Your task to perform on an android device: Empty the shopping cart on ebay. Search for "razer thresher" on ebay, select the first entry, and add it to the cart. Image 0: 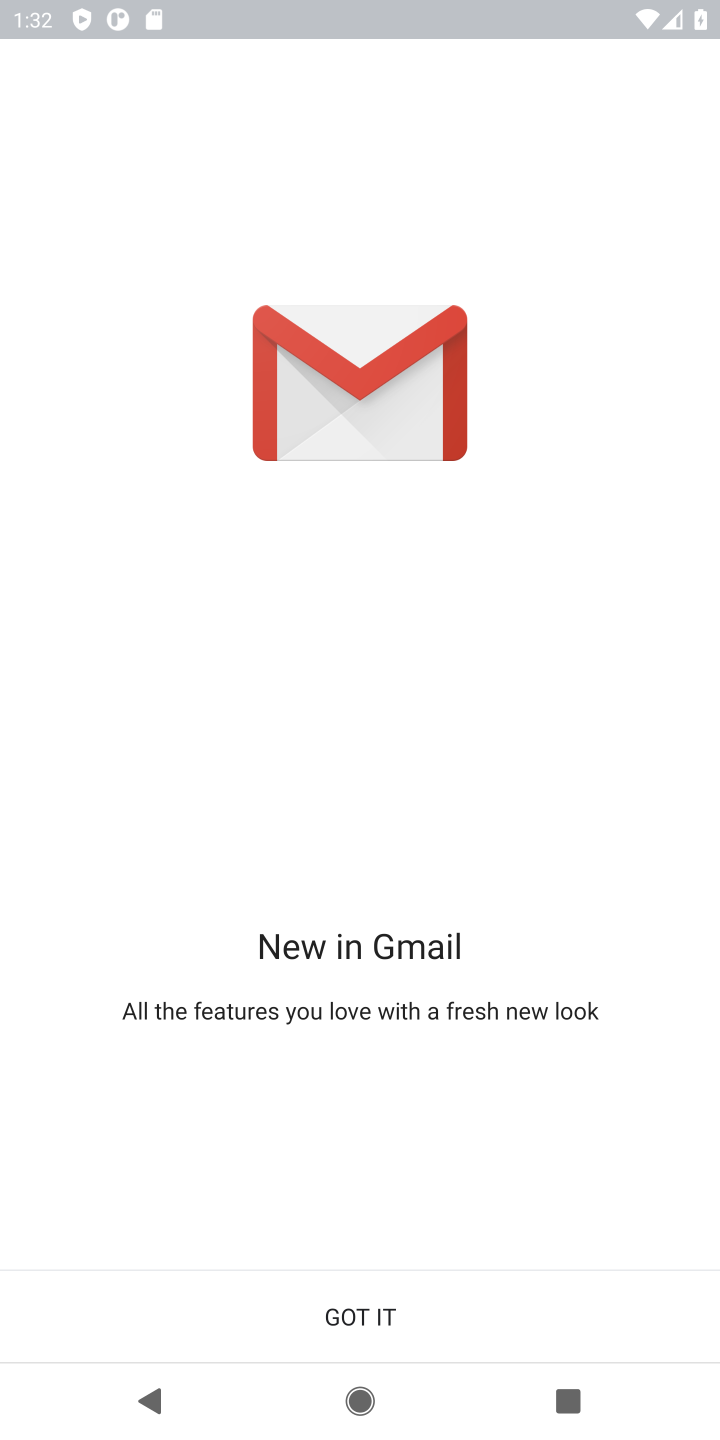
Step 0: press home button
Your task to perform on an android device: Empty the shopping cart on ebay. Search for "razer thresher" on ebay, select the first entry, and add it to the cart. Image 1: 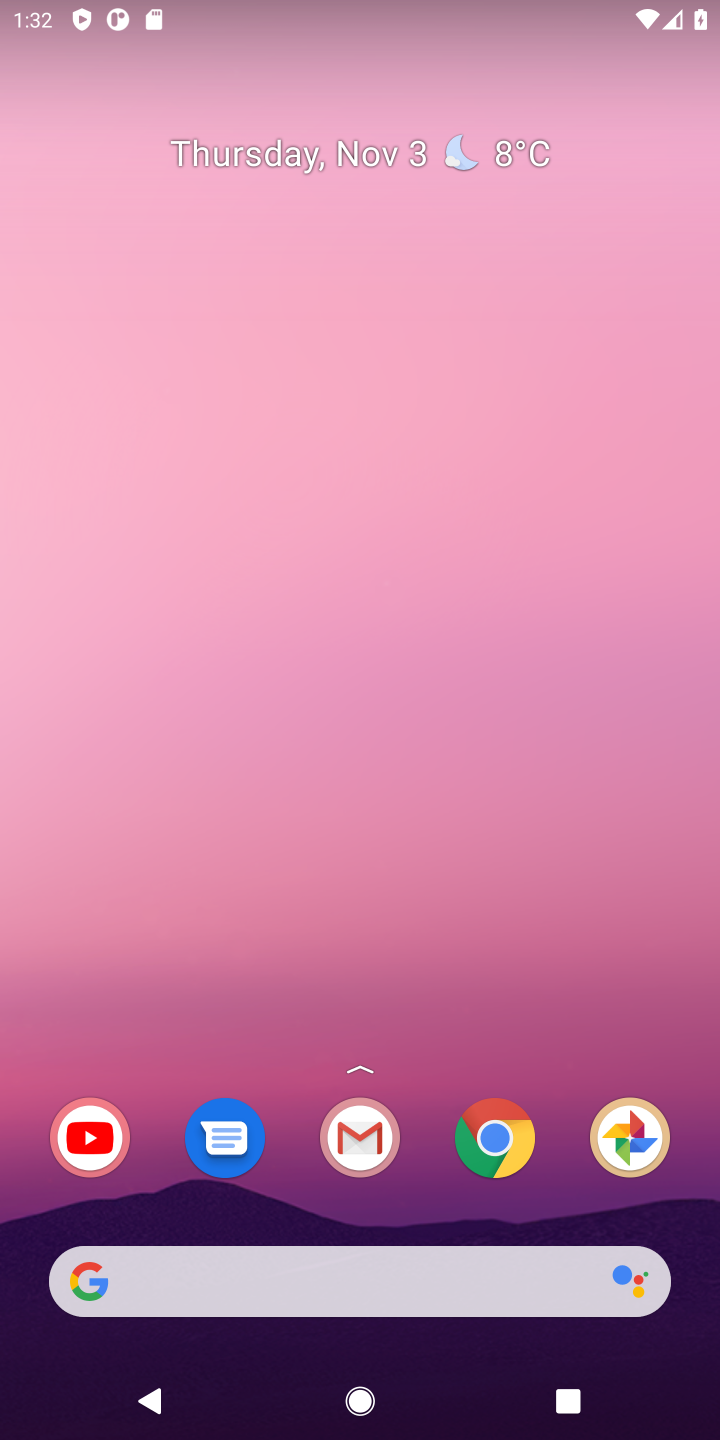
Step 1: click (487, 1136)
Your task to perform on an android device: Empty the shopping cart on ebay. Search for "razer thresher" on ebay, select the first entry, and add it to the cart. Image 2: 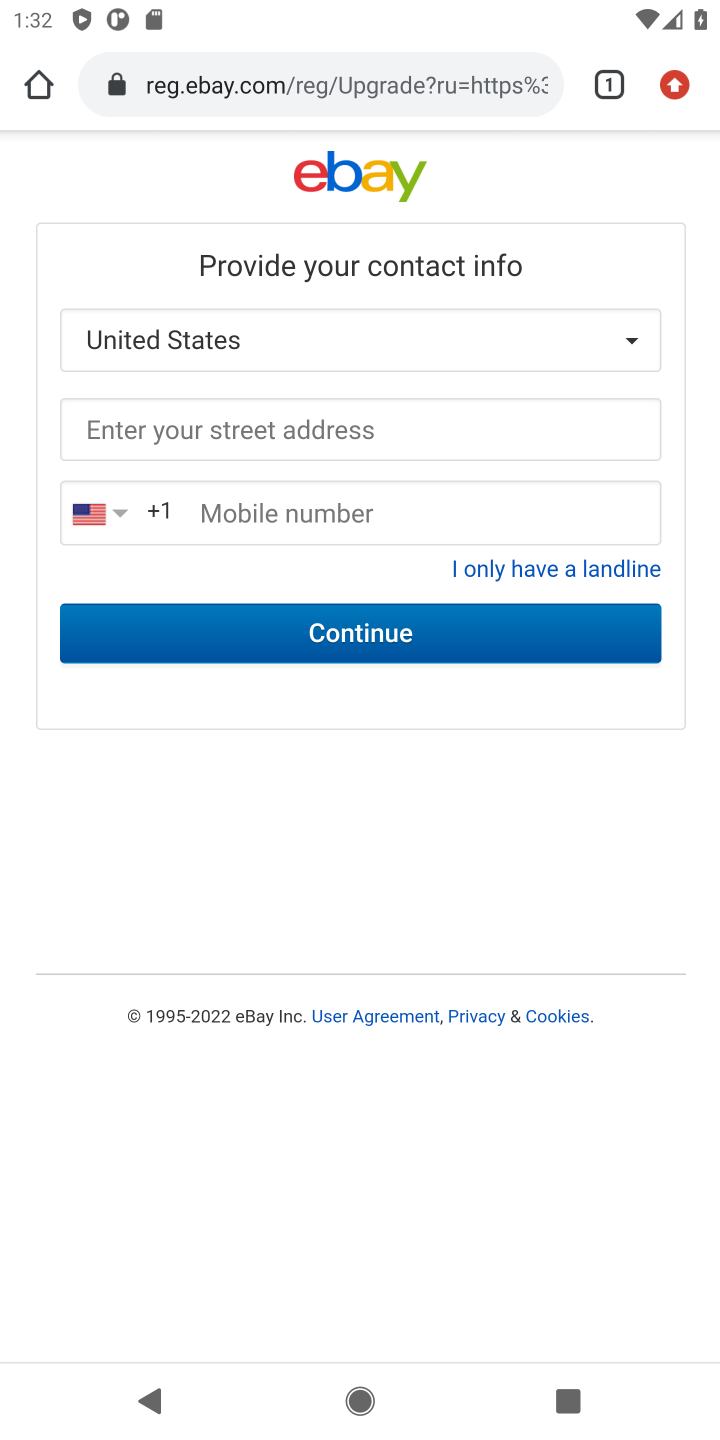
Step 2: press back button
Your task to perform on an android device: Empty the shopping cart on ebay. Search for "razer thresher" on ebay, select the first entry, and add it to the cart. Image 3: 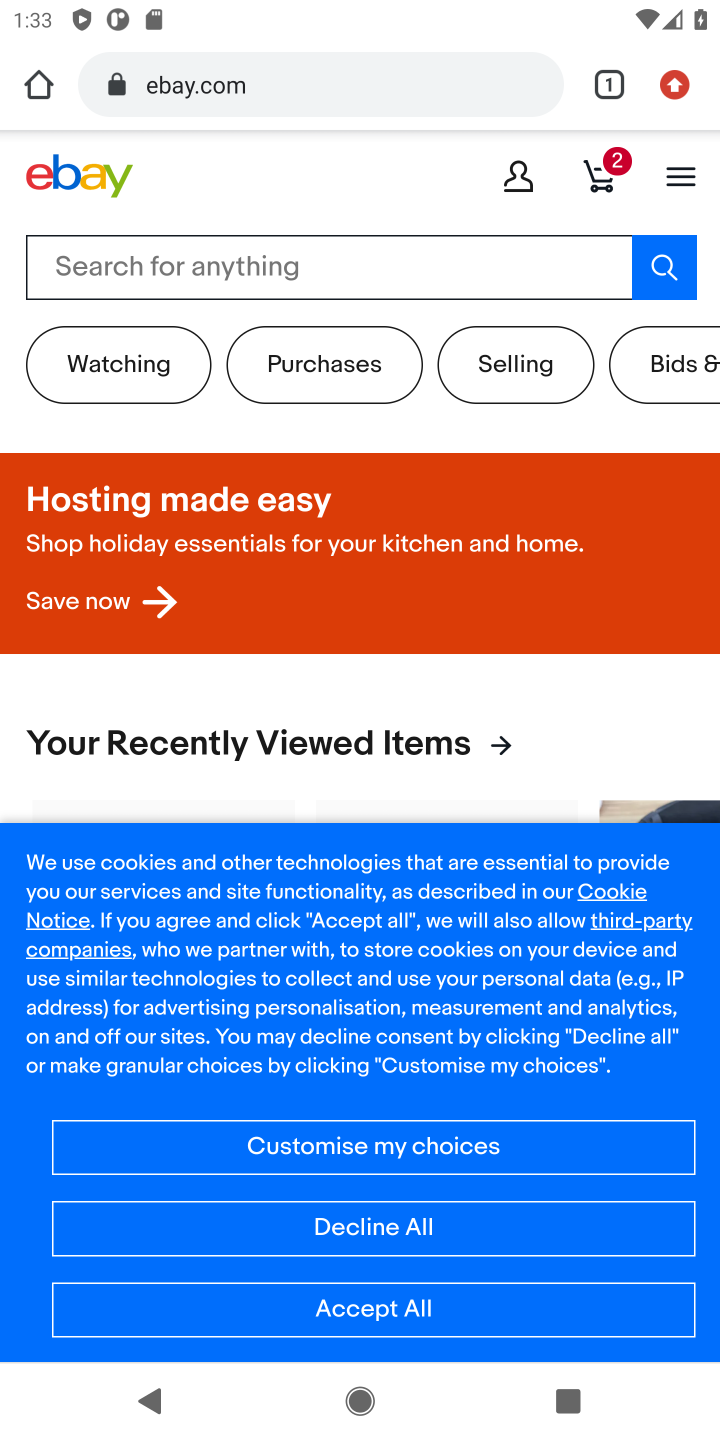
Step 3: click (603, 167)
Your task to perform on an android device: Empty the shopping cart on ebay. Search for "razer thresher" on ebay, select the first entry, and add it to the cart. Image 4: 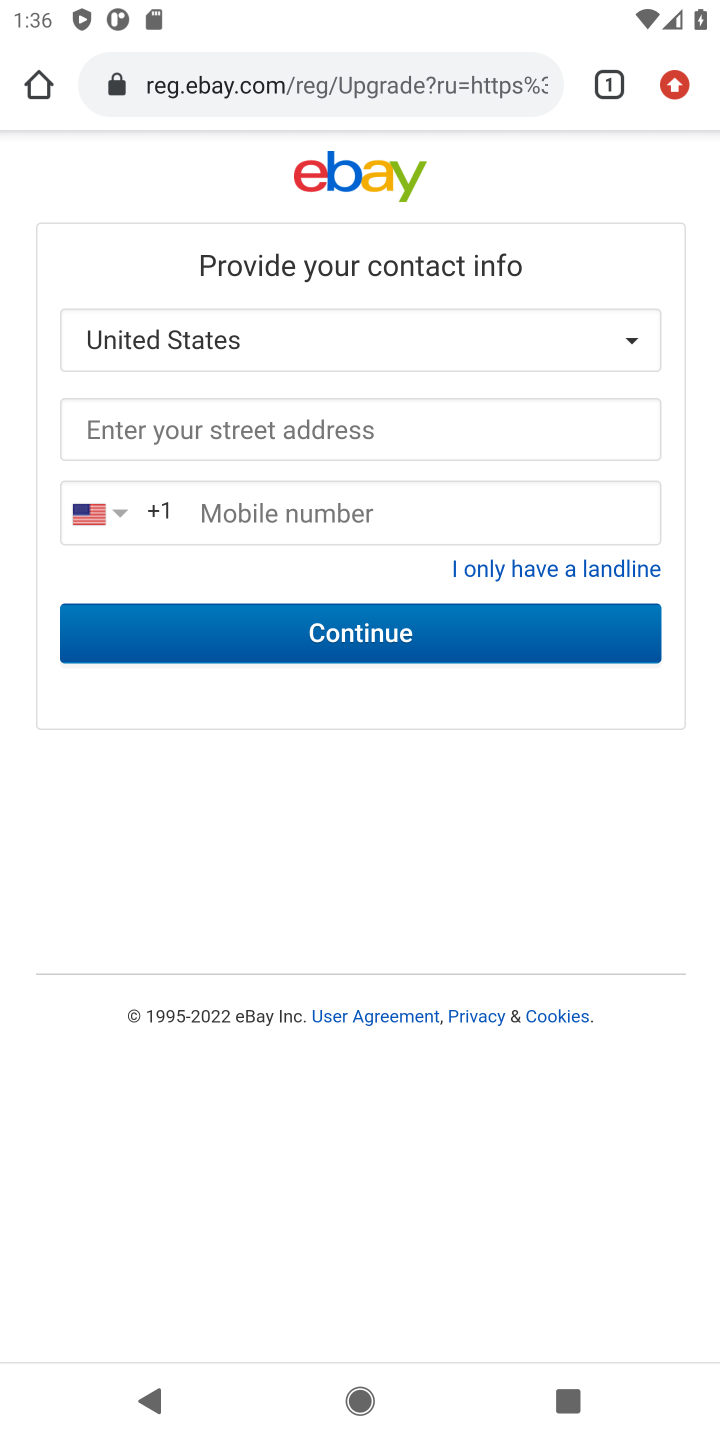
Step 4: task complete